Your task to perform on an android device: Open network settings Image 0: 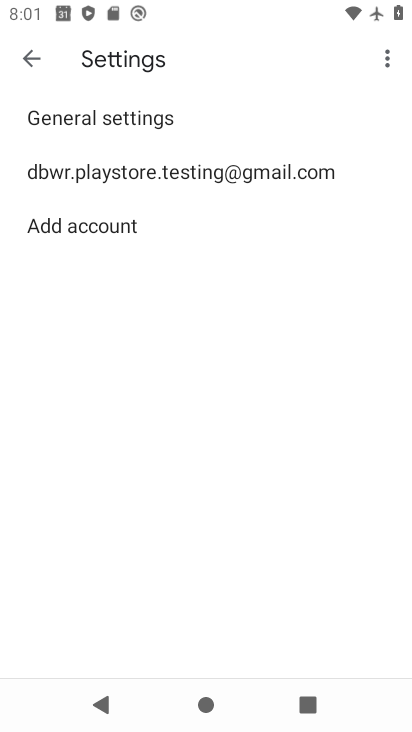
Step 0: press home button
Your task to perform on an android device: Open network settings Image 1: 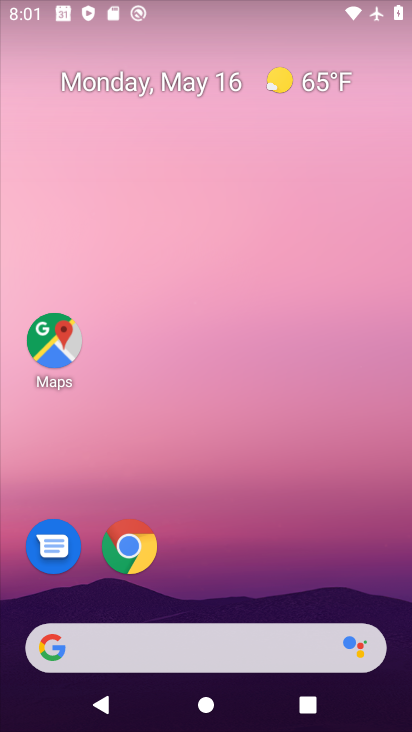
Step 1: drag from (267, 553) to (258, 156)
Your task to perform on an android device: Open network settings Image 2: 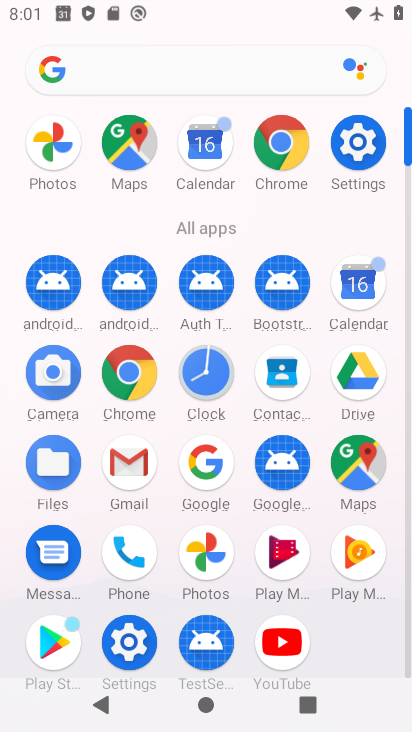
Step 2: click (351, 155)
Your task to perform on an android device: Open network settings Image 3: 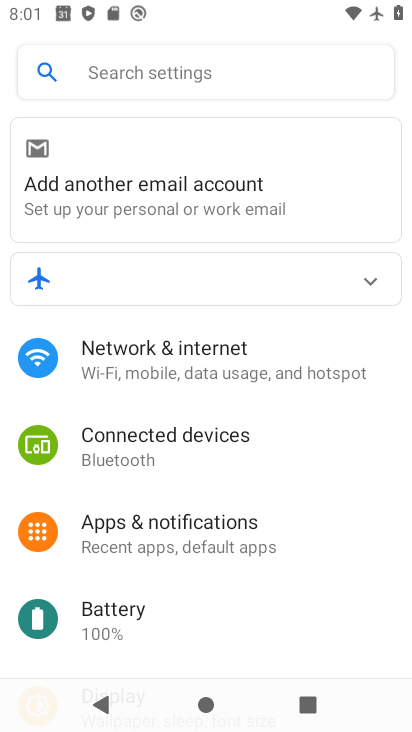
Step 3: click (175, 319)
Your task to perform on an android device: Open network settings Image 4: 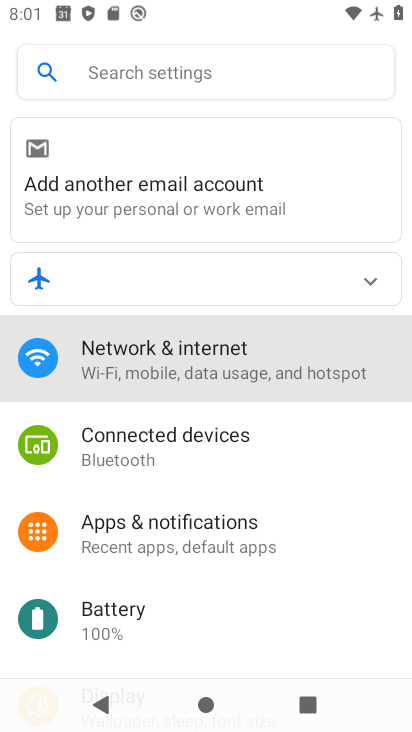
Step 4: click (175, 319)
Your task to perform on an android device: Open network settings Image 5: 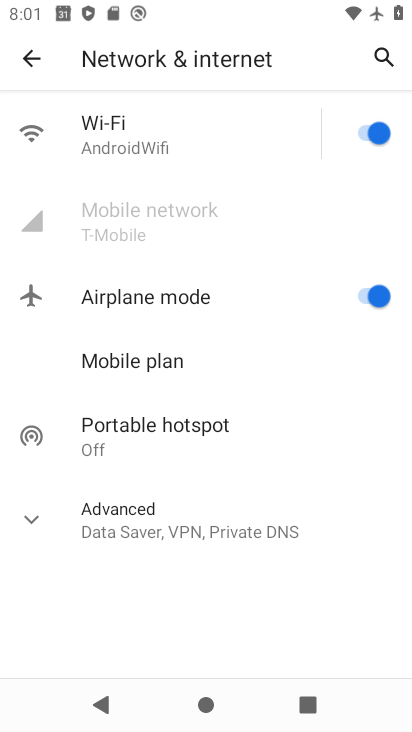
Step 5: task complete